Your task to perform on an android device: create a new album in the google photos Image 0: 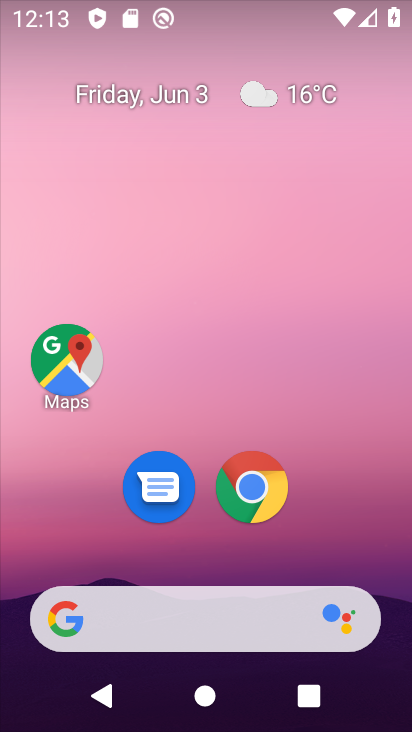
Step 0: drag from (183, 574) to (15, 309)
Your task to perform on an android device: create a new album in the google photos Image 1: 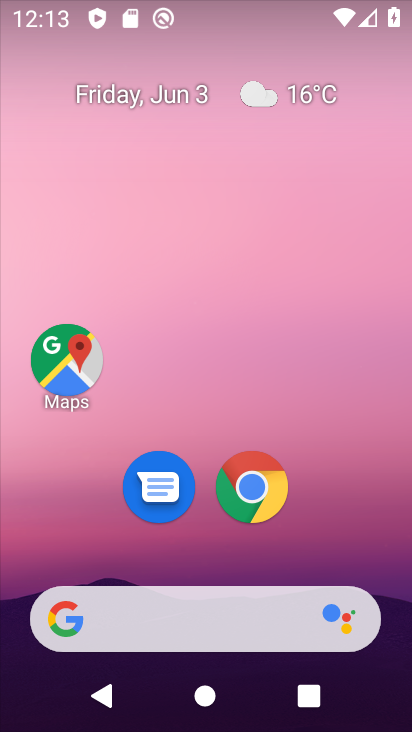
Step 1: drag from (167, 618) to (108, 1)
Your task to perform on an android device: create a new album in the google photos Image 2: 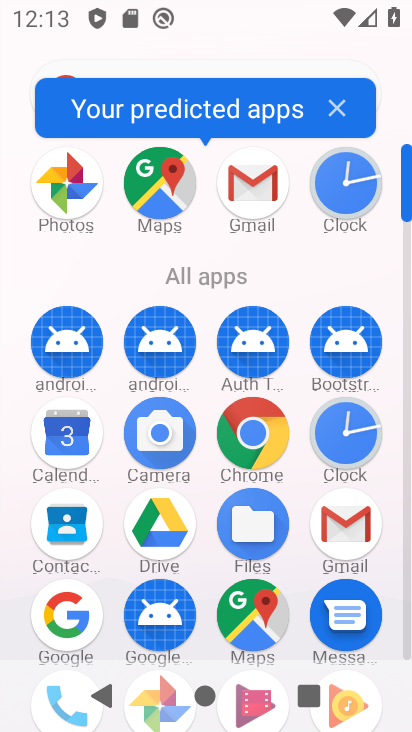
Step 2: drag from (189, 577) to (123, 78)
Your task to perform on an android device: create a new album in the google photos Image 3: 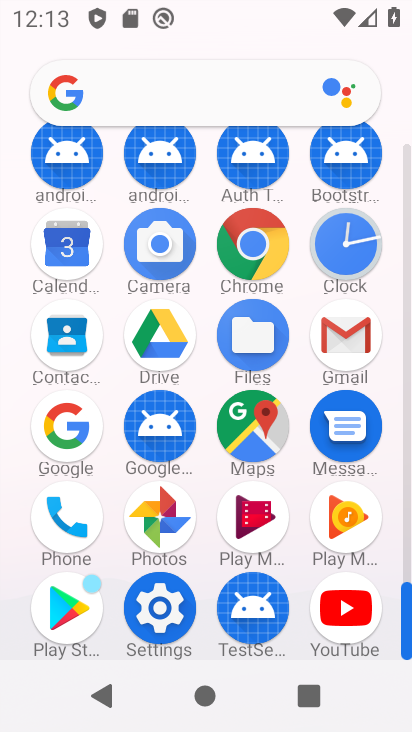
Step 3: click (144, 513)
Your task to perform on an android device: create a new album in the google photos Image 4: 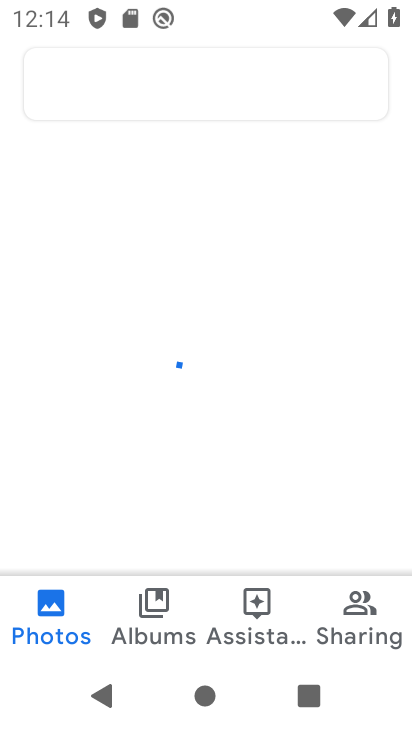
Step 4: click (256, 610)
Your task to perform on an android device: create a new album in the google photos Image 5: 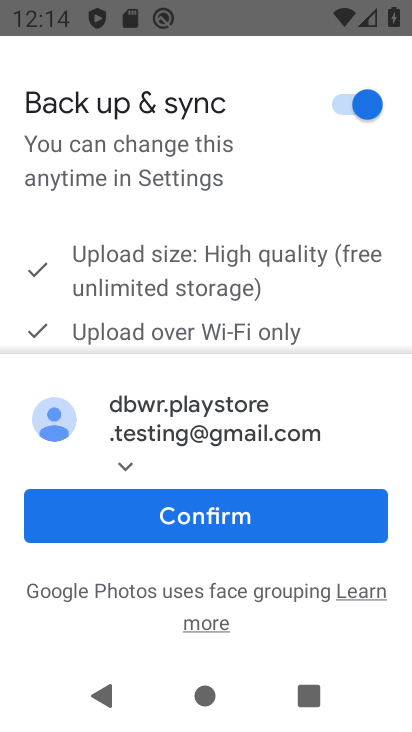
Step 5: click (212, 521)
Your task to perform on an android device: create a new album in the google photos Image 6: 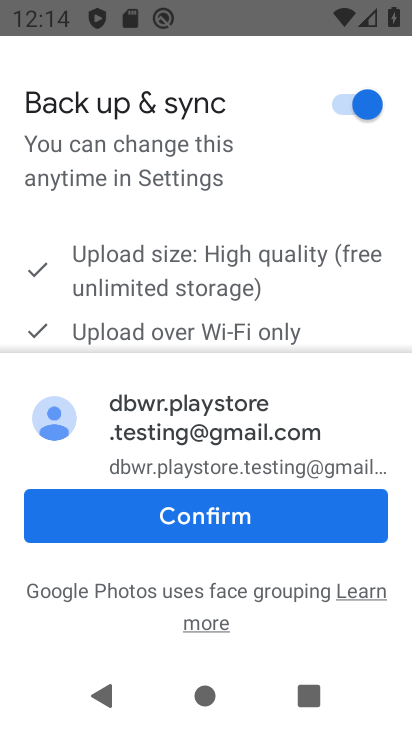
Step 6: click (227, 533)
Your task to perform on an android device: create a new album in the google photos Image 7: 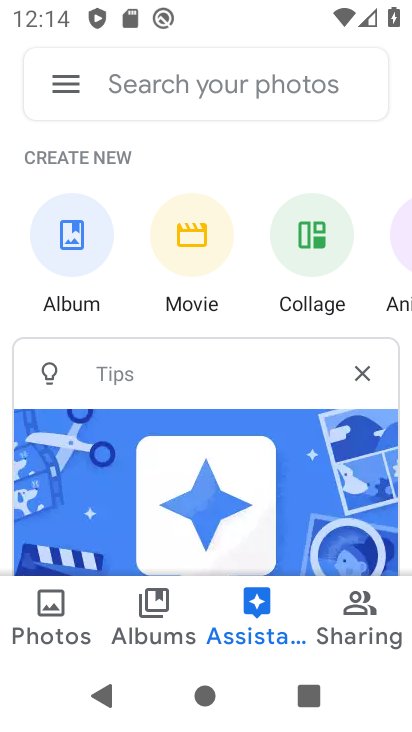
Step 7: click (87, 239)
Your task to perform on an android device: create a new album in the google photos Image 8: 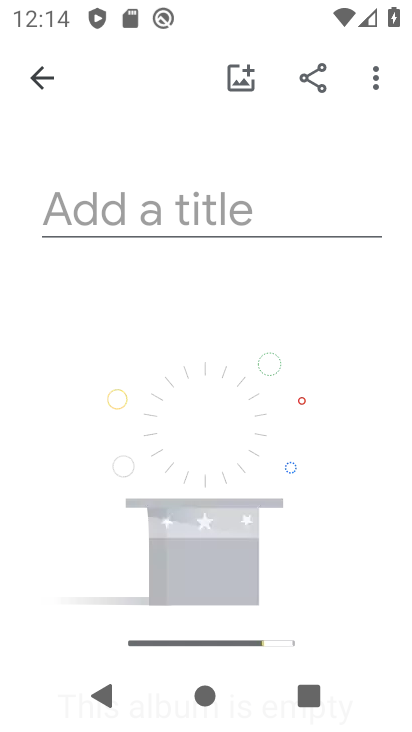
Step 8: click (181, 216)
Your task to perform on an android device: create a new album in the google photos Image 9: 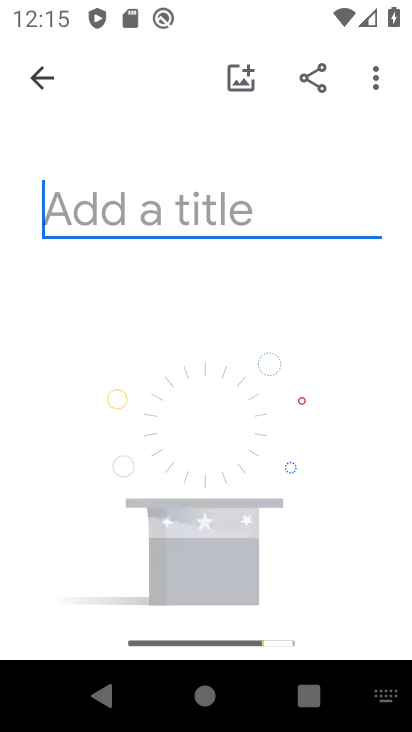
Step 9: type "quiq"
Your task to perform on an android device: create a new album in the google photos Image 10: 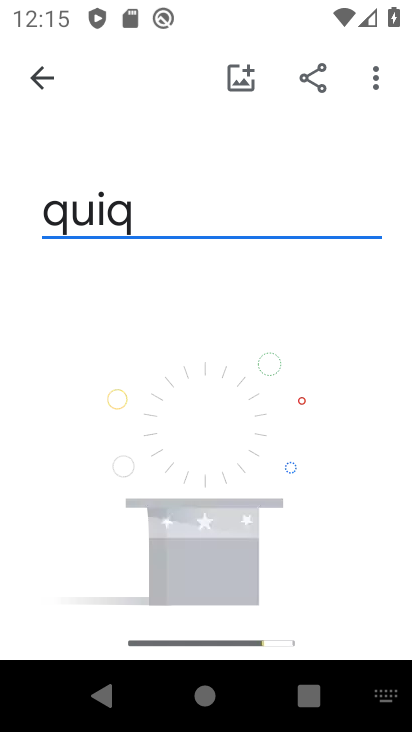
Step 10: drag from (247, 359) to (286, 65)
Your task to perform on an android device: create a new album in the google photos Image 11: 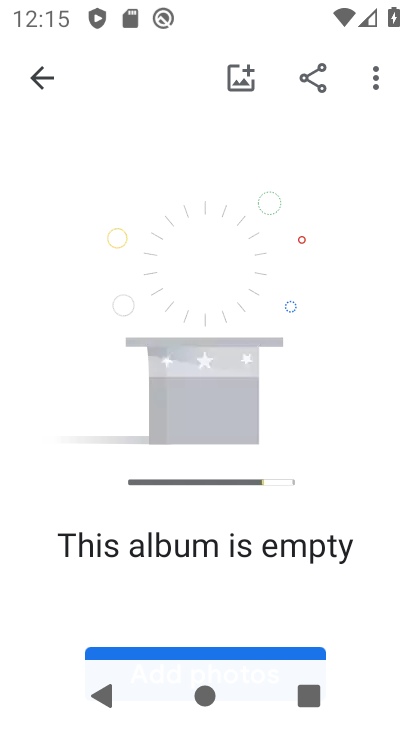
Step 11: drag from (225, 603) to (292, 232)
Your task to perform on an android device: create a new album in the google photos Image 12: 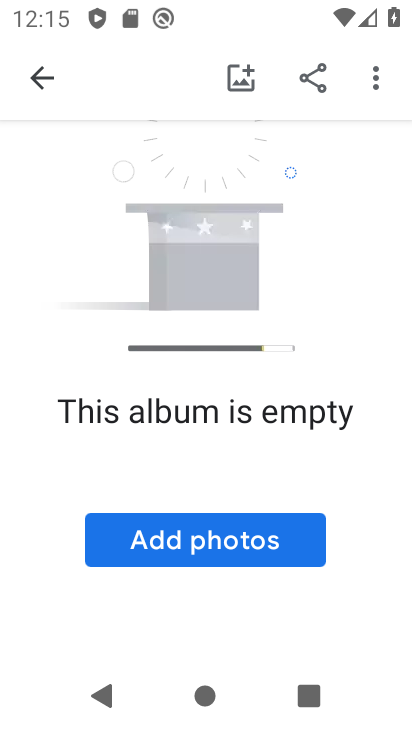
Step 12: click (233, 545)
Your task to perform on an android device: create a new album in the google photos Image 13: 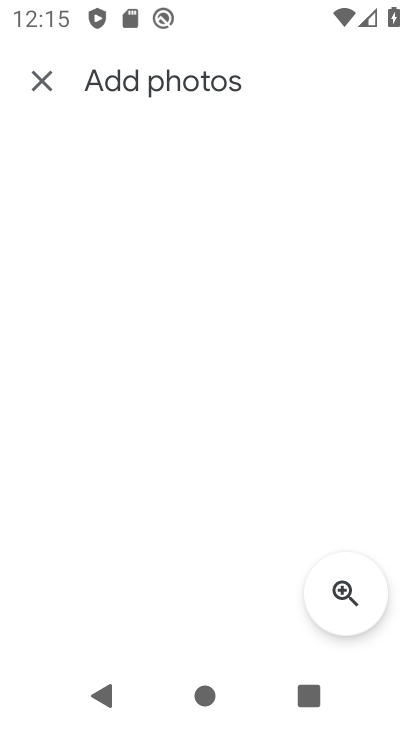
Step 13: drag from (206, 384) to (197, 46)
Your task to perform on an android device: create a new album in the google photos Image 14: 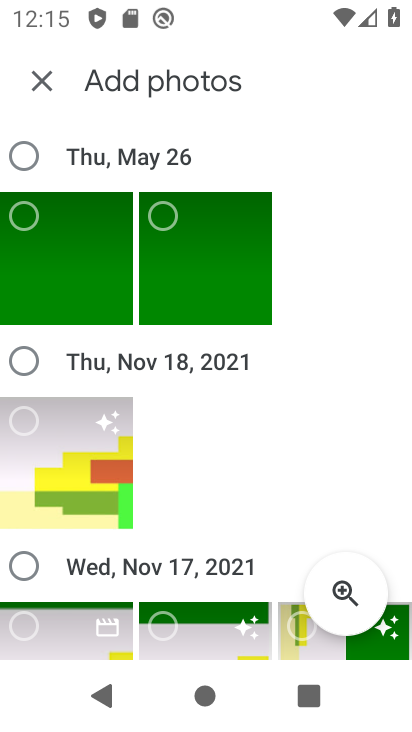
Step 14: click (35, 145)
Your task to perform on an android device: create a new album in the google photos Image 15: 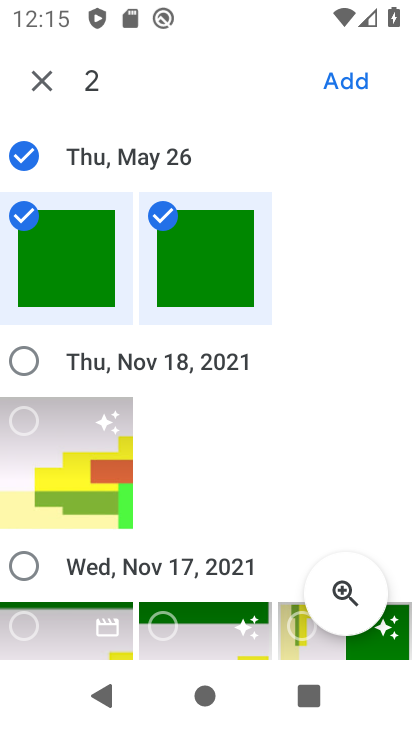
Step 15: click (31, 362)
Your task to perform on an android device: create a new album in the google photos Image 16: 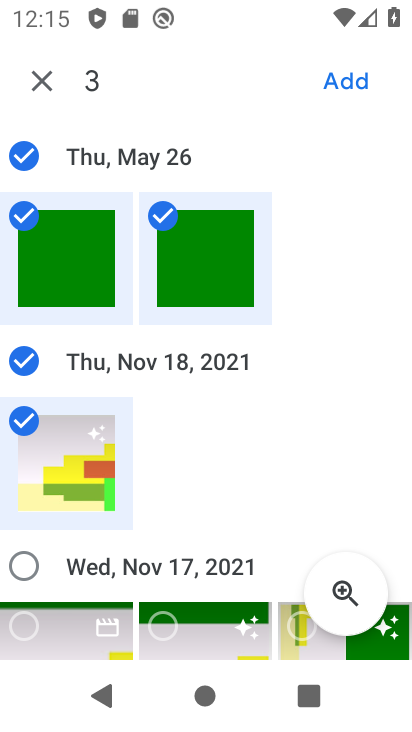
Step 16: click (35, 565)
Your task to perform on an android device: create a new album in the google photos Image 17: 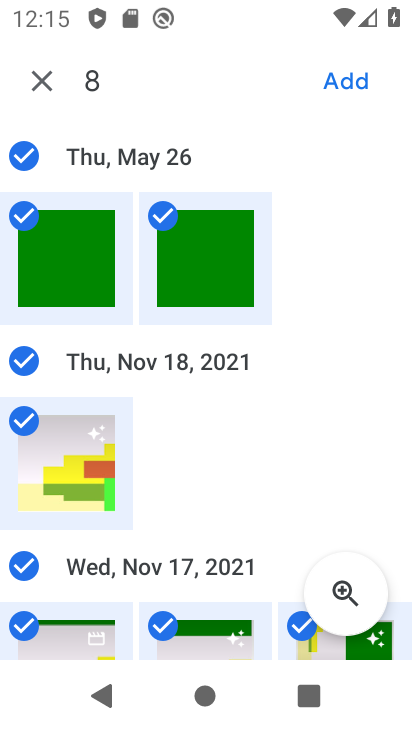
Step 17: click (343, 80)
Your task to perform on an android device: create a new album in the google photos Image 18: 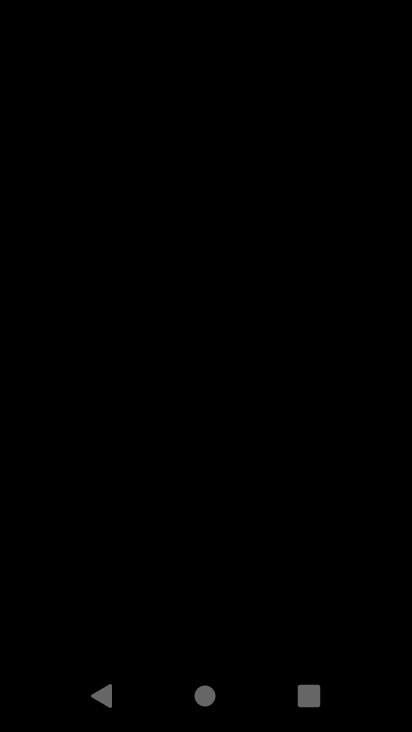
Step 18: task complete